Your task to perform on an android device: open a bookmark in the chrome app Image 0: 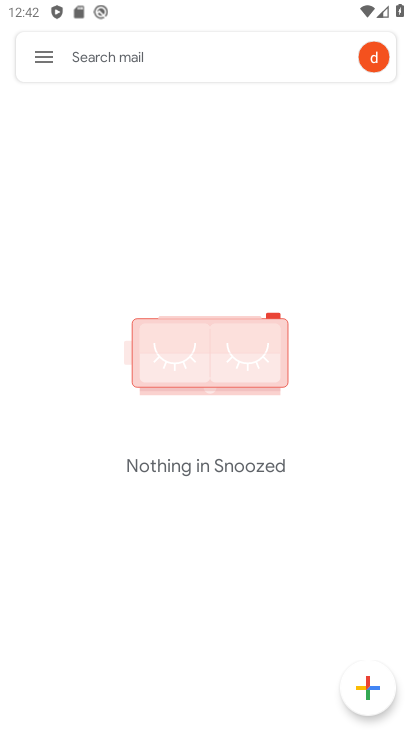
Step 0: press home button
Your task to perform on an android device: open a bookmark in the chrome app Image 1: 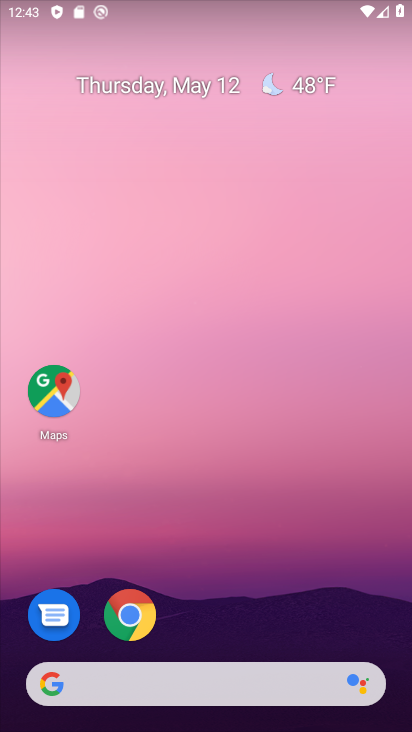
Step 1: drag from (298, 708) to (338, 27)
Your task to perform on an android device: open a bookmark in the chrome app Image 2: 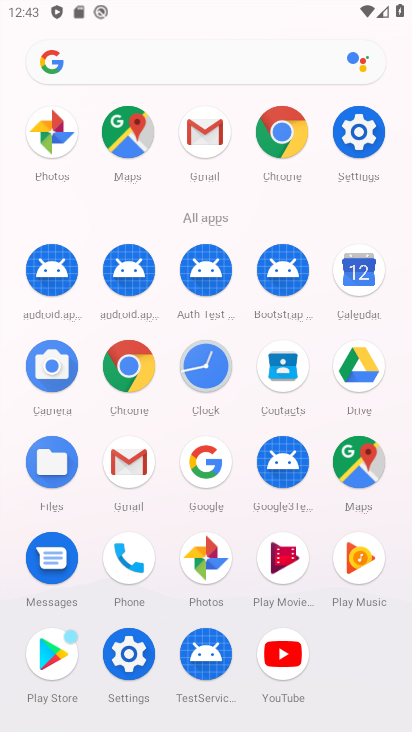
Step 2: click (111, 367)
Your task to perform on an android device: open a bookmark in the chrome app Image 3: 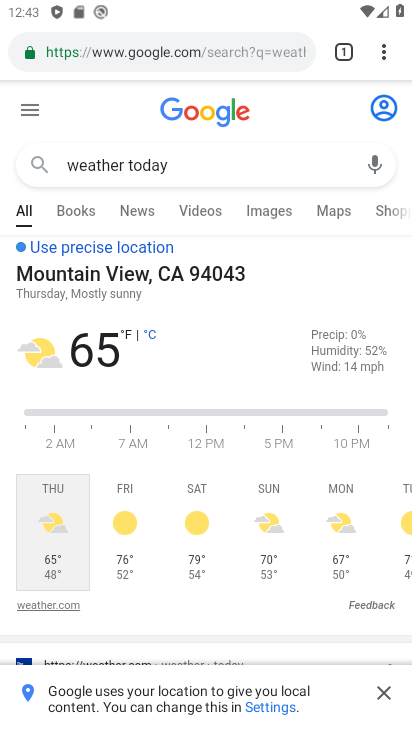
Step 3: task complete